Your task to perform on an android device: Go to display settings Image 0: 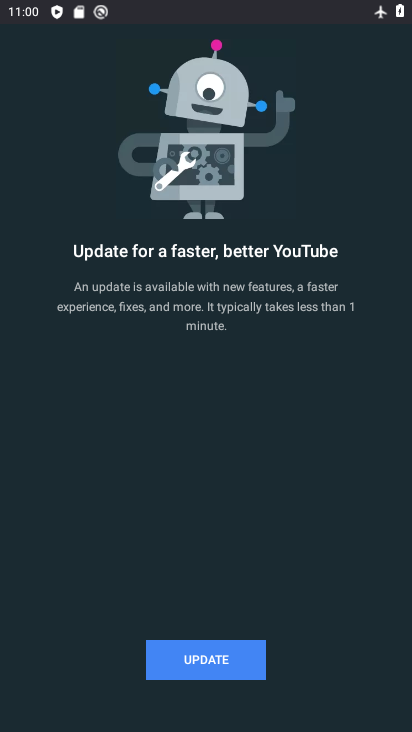
Step 0: press home button
Your task to perform on an android device: Go to display settings Image 1: 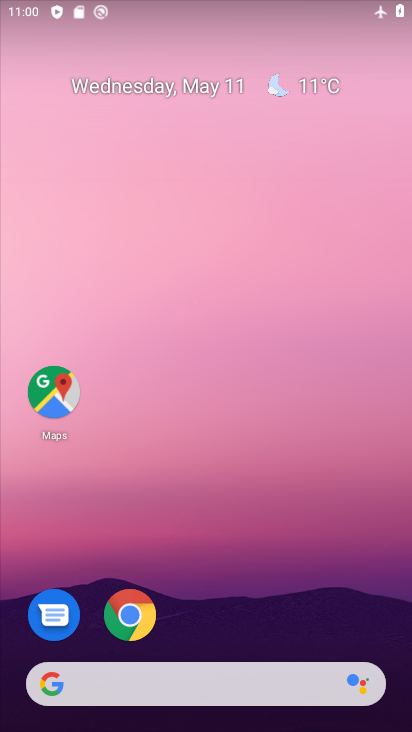
Step 1: drag from (308, 610) to (273, 74)
Your task to perform on an android device: Go to display settings Image 2: 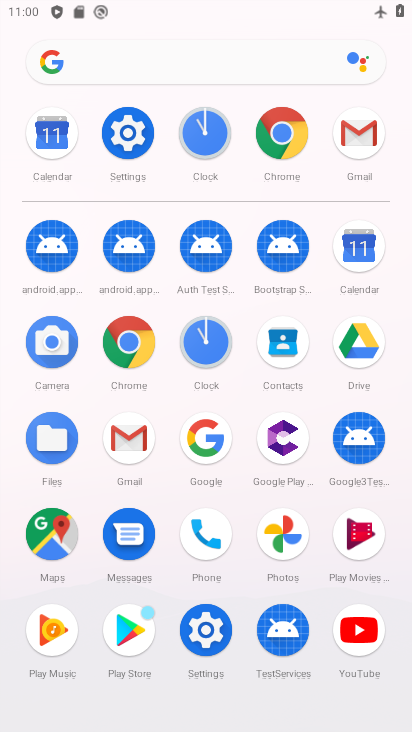
Step 2: click (136, 128)
Your task to perform on an android device: Go to display settings Image 3: 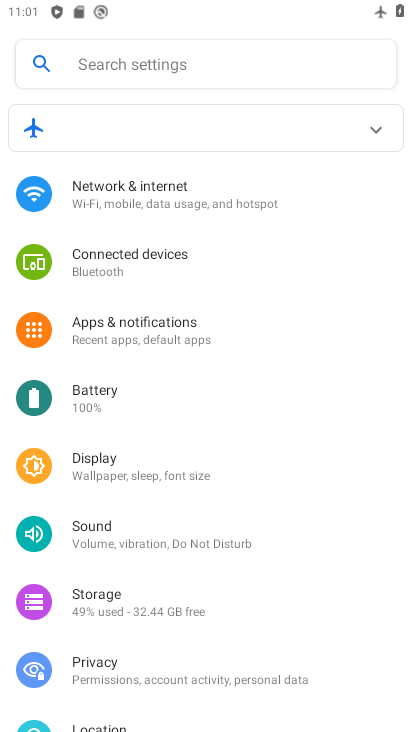
Step 3: click (160, 473)
Your task to perform on an android device: Go to display settings Image 4: 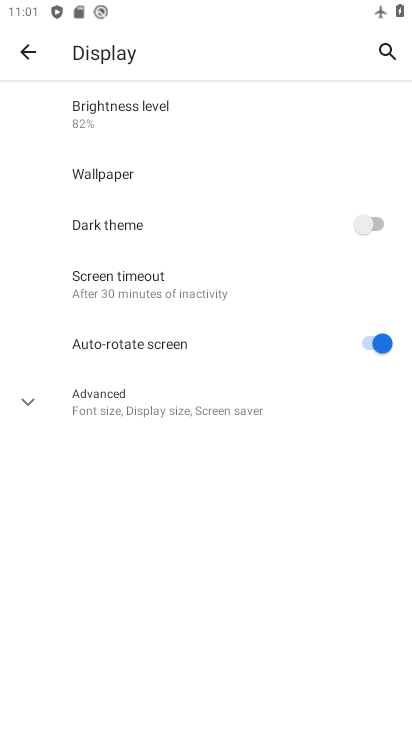
Step 4: task complete